Your task to perform on an android device: Search for vegetarian restaurants on Maps Image 0: 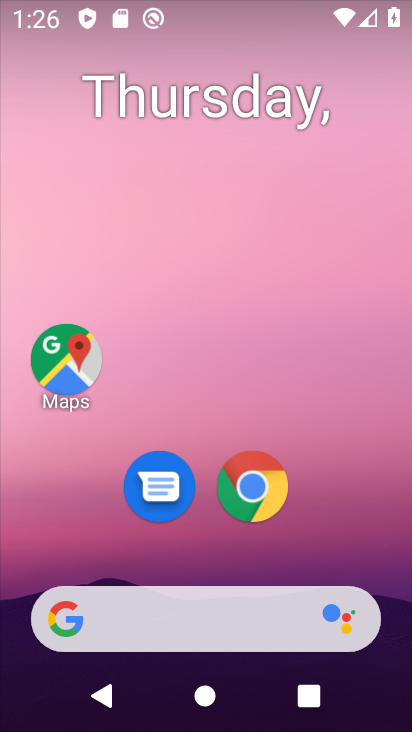
Step 0: click (82, 365)
Your task to perform on an android device: Search for vegetarian restaurants on Maps Image 1: 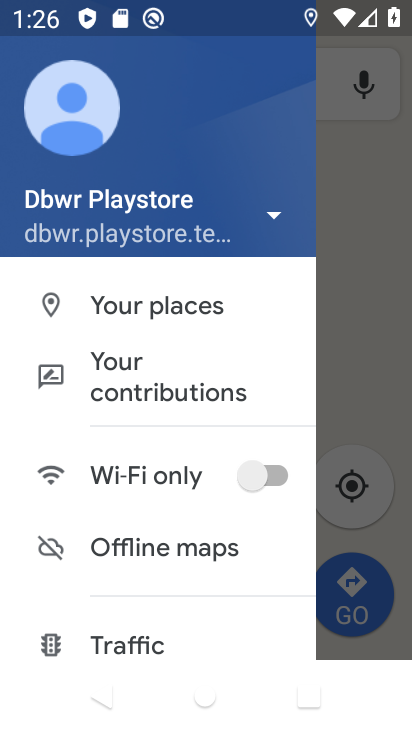
Step 1: click (377, 327)
Your task to perform on an android device: Search for vegetarian restaurants on Maps Image 2: 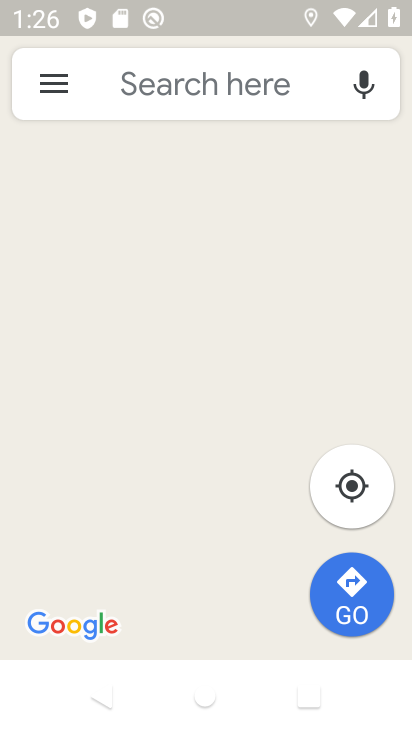
Step 2: click (213, 67)
Your task to perform on an android device: Search for vegetarian restaurants on Maps Image 3: 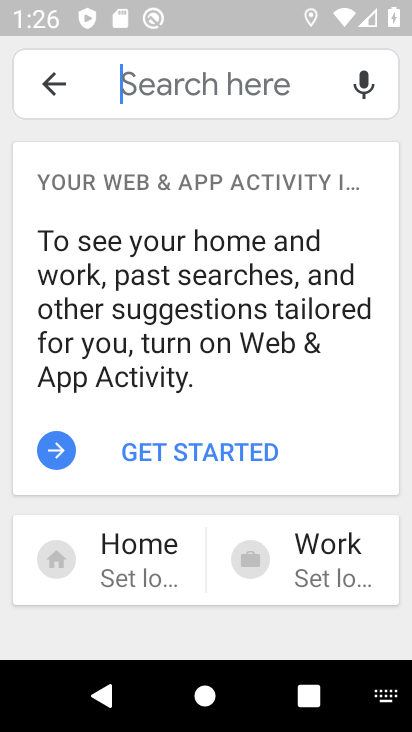
Step 3: type "vegetarian restaurants"
Your task to perform on an android device: Search for vegetarian restaurants on Maps Image 4: 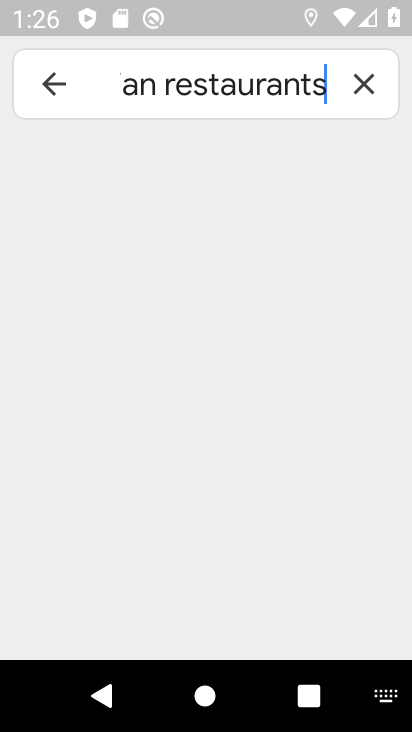
Step 4: task complete